Your task to perform on an android device: open chrome privacy settings Image 0: 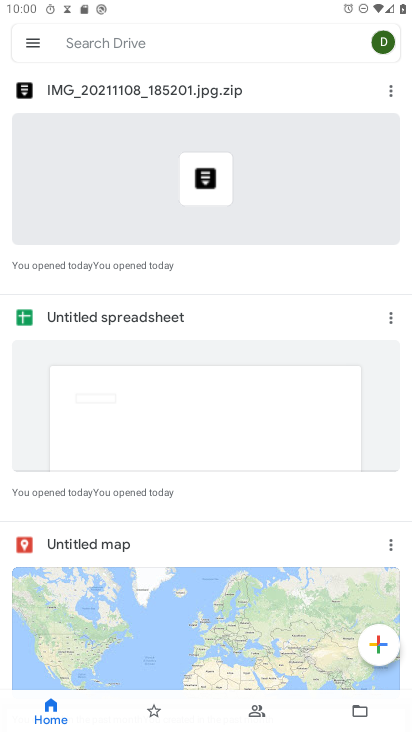
Step 0: press home button
Your task to perform on an android device: open chrome privacy settings Image 1: 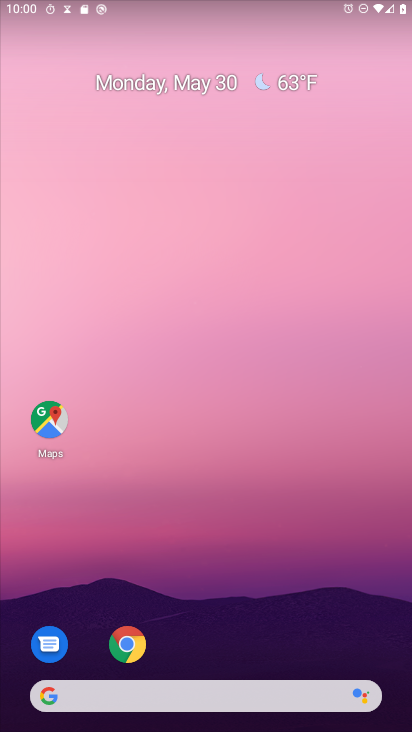
Step 1: click (130, 640)
Your task to perform on an android device: open chrome privacy settings Image 2: 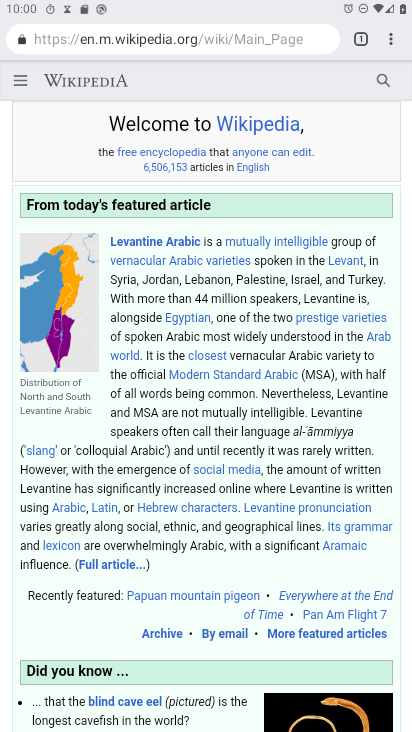
Step 2: click (383, 42)
Your task to perform on an android device: open chrome privacy settings Image 3: 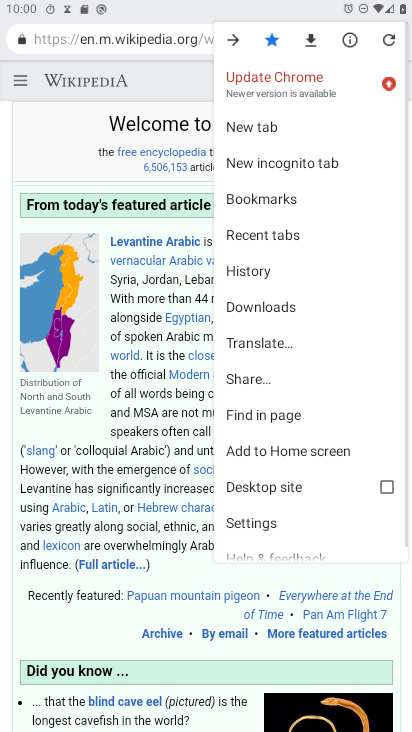
Step 3: click (269, 526)
Your task to perform on an android device: open chrome privacy settings Image 4: 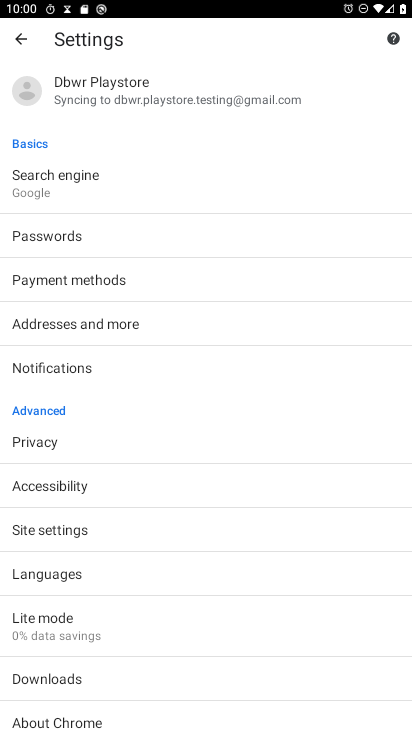
Step 4: click (64, 449)
Your task to perform on an android device: open chrome privacy settings Image 5: 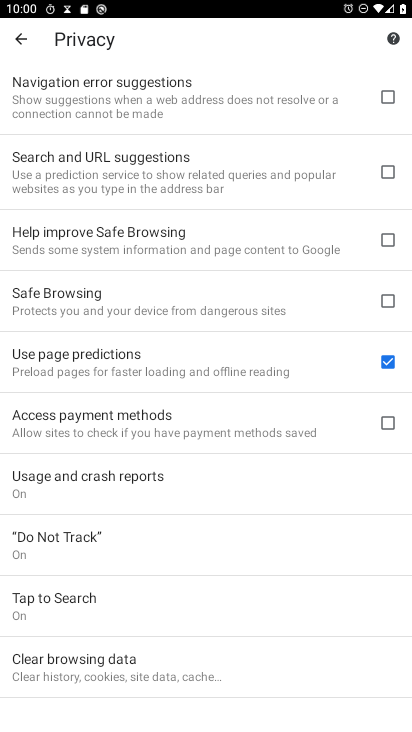
Step 5: task complete